Your task to perform on an android device: toggle improve location accuracy Image 0: 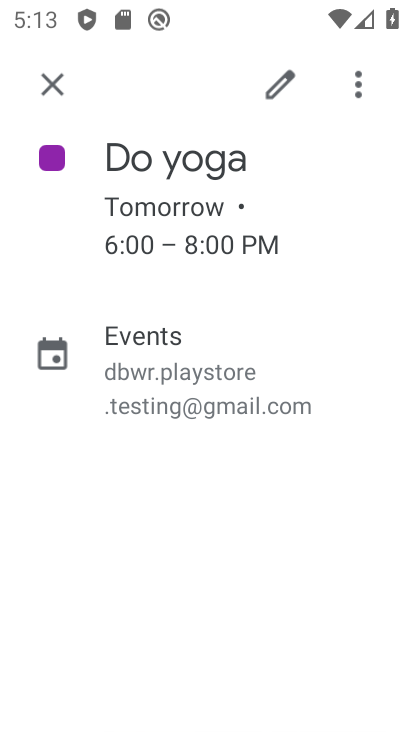
Step 0: press home button
Your task to perform on an android device: toggle improve location accuracy Image 1: 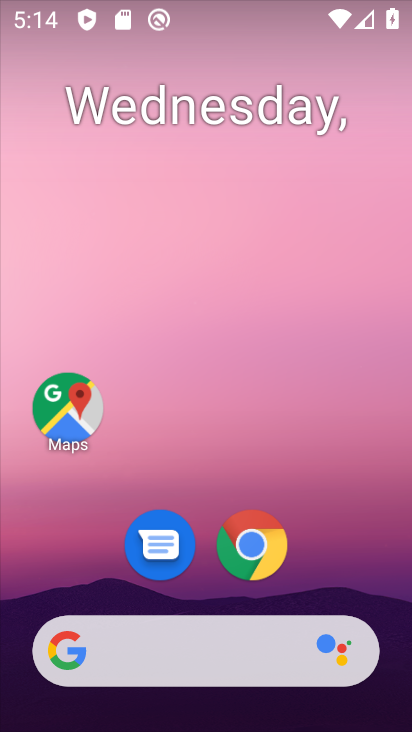
Step 1: drag from (197, 628) to (302, 56)
Your task to perform on an android device: toggle improve location accuracy Image 2: 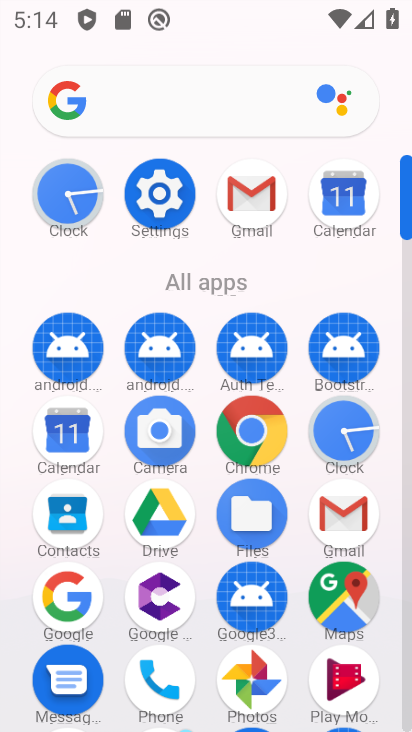
Step 2: click (173, 183)
Your task to perform on an android device: toggle improve location accuracy Image 3: 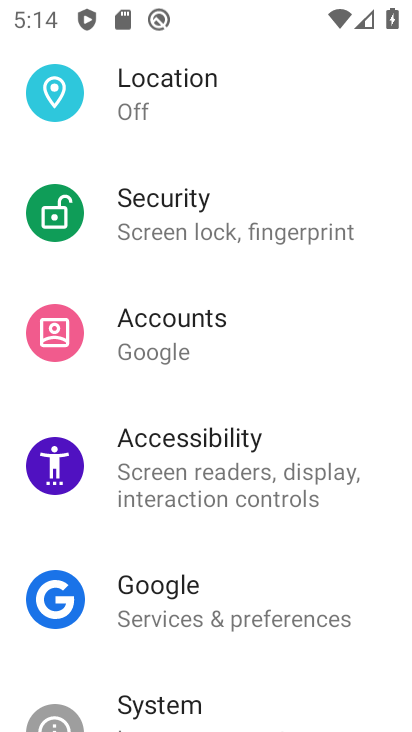
Step 3: click (166, 98)
Your task to perform on an android device: toggle improve location accuracy Image 4: 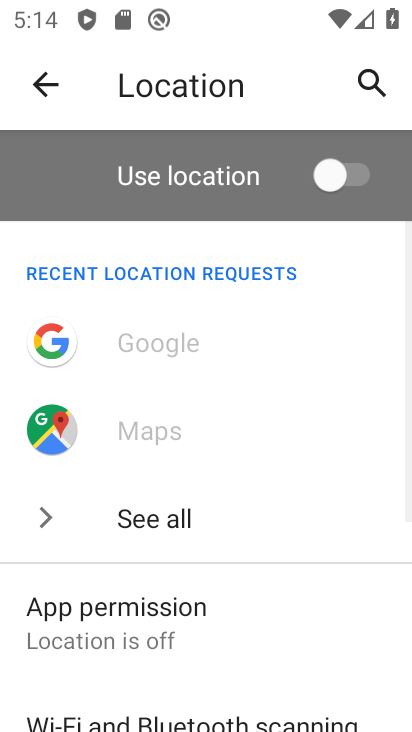
Step 4: drag from (187, 665) to (249, 91)
Your task to perform on an android device: toggle improve location accuracy Image 5: 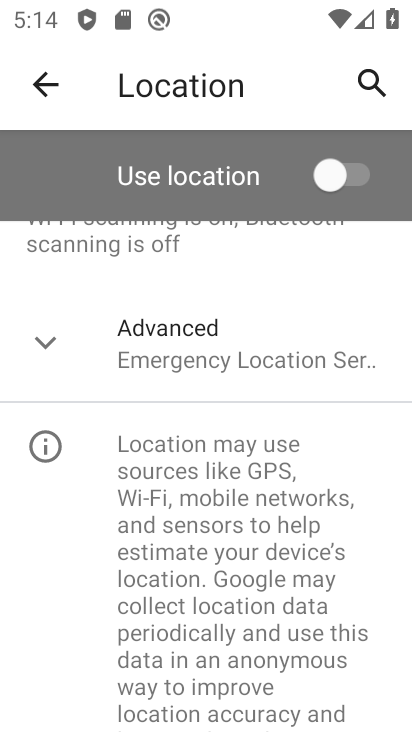
Step 5: click (208, 370)
Your task to perform on an android device: toggle improve location accuracy Image 6: 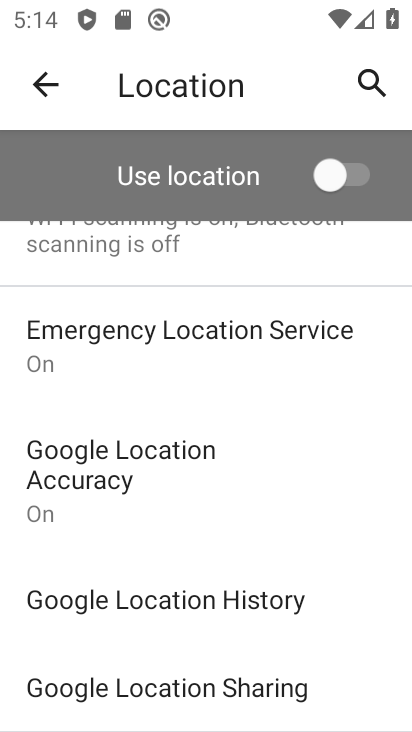
Step 6: click (95, 497)
Your task to perform on an android device: toggle improve location accuracy Image 7: 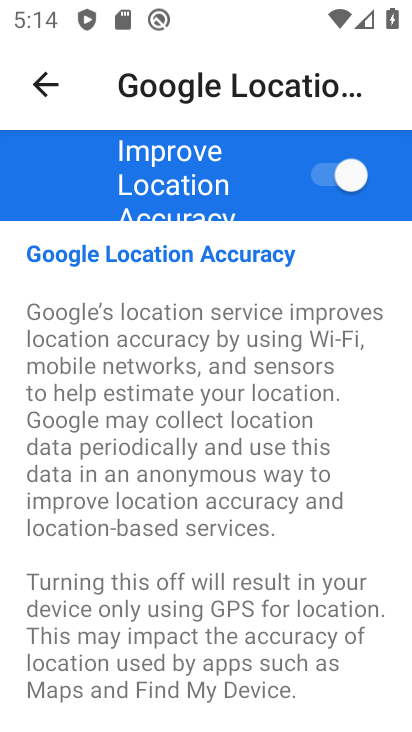
Step 7: click (335, 164)
Your task to perform on an android device: toggle improve location accuracy Image 8: 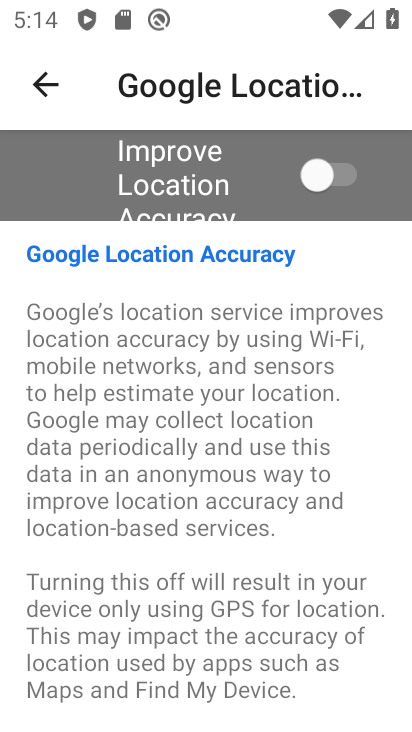
Step 8: task complete